Your task to perform on an android device: Open Google Maps and go to "Timeline" Image 0: 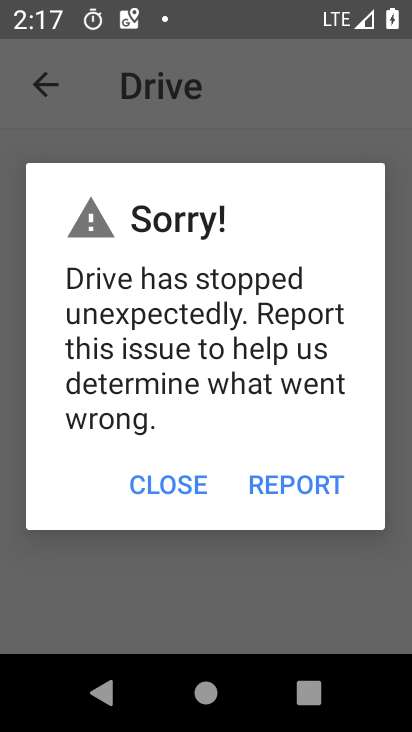
Step 0: press home button
Your task to perform on an android device: Open Google Maps and go to "Timeline" Image 1: 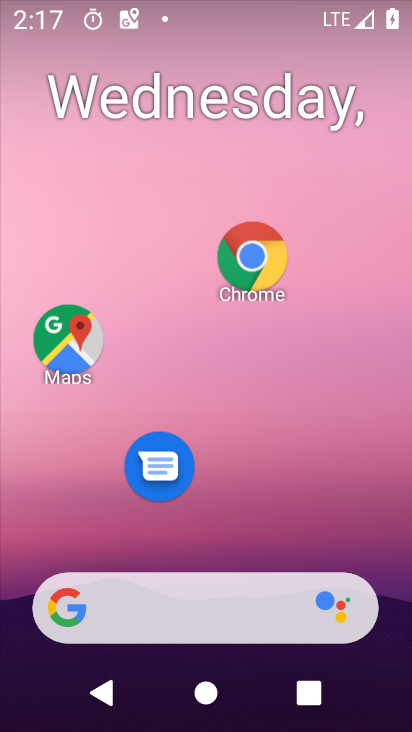
Step 1: click (40, 354)
Your task to perform on an android device: Open Google Maps and go to "Timeline" Image 2: 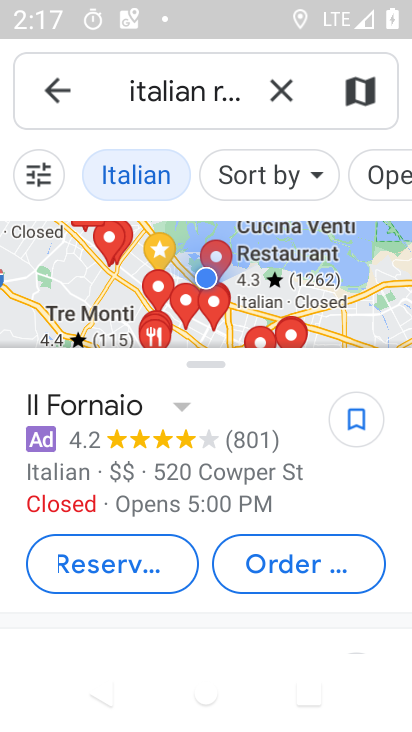
Step 2: click (44, 76)
Your task to perform on an android device: Open Google Maps and go to "Timeline" Image 3: 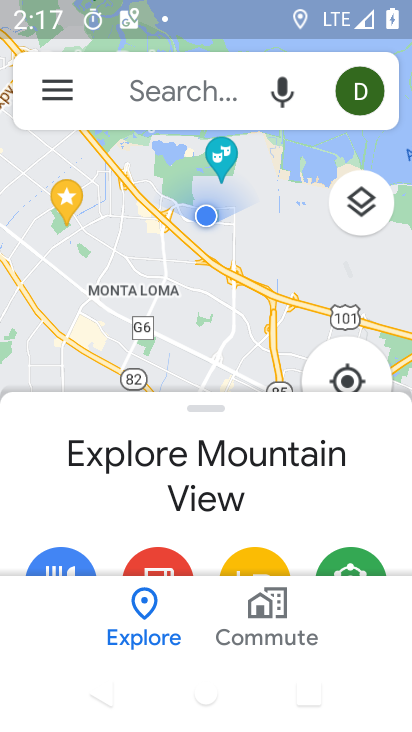
Step 3: click (68, 102)
Your task to perform on an android device: Open Google Maps and go to "Timeline" Image 4: 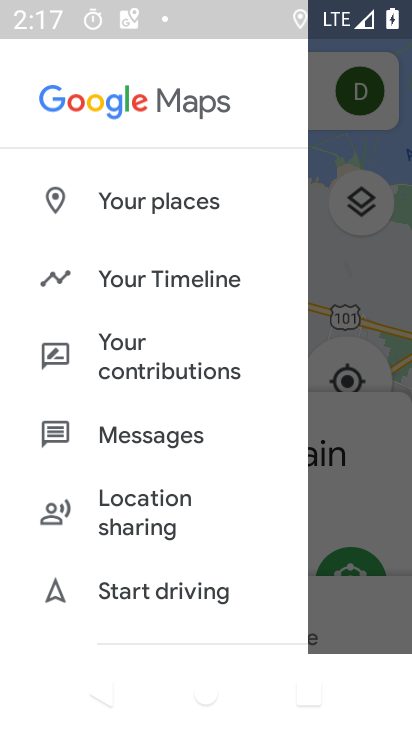
Step 4: click (204, 287)
Your task to perform on an android device: Open Google Maps and go to "Timeline" Image 5: 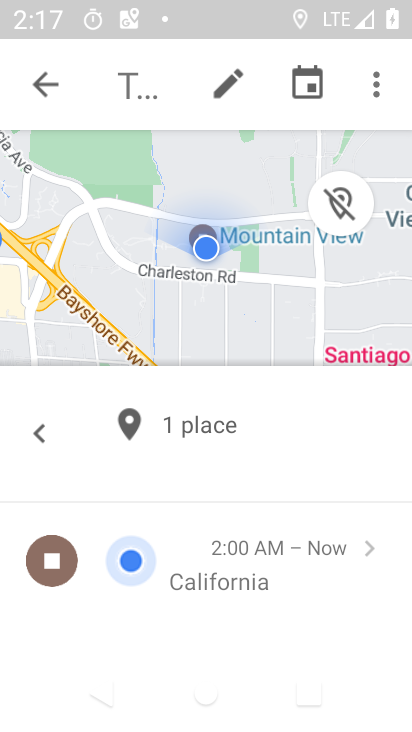
Step 5: task complete